Your task to perform on an android device: Turn on notifications for the Google Maps app Image 0: 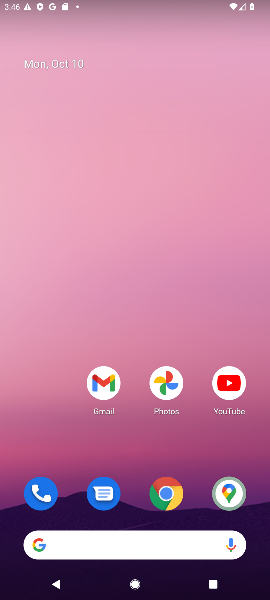
Step 0: click (224, 495)
Your task to perform on an android device: Turn on notifications for the Google Maps app Image 1: 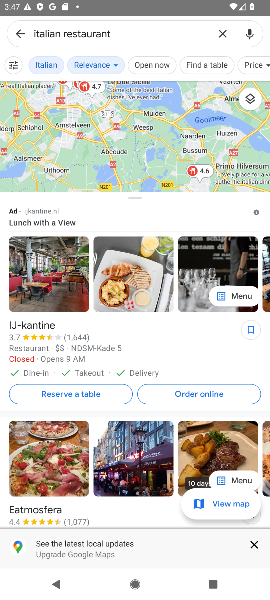
Step 1: click (19, 34)
Your task to perform on an android device: Turn on notifications for the Google Maps app Image 2: 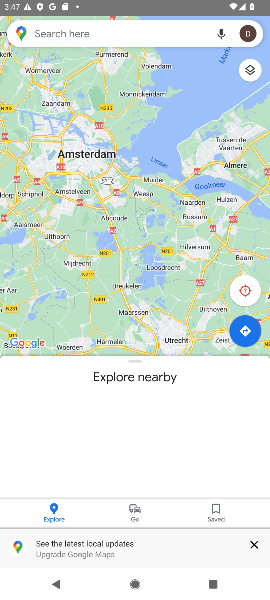
Step 2: click (21, 35)
Your task to perform on an android device: Turn on notifications for the Google Maps app Image 3: 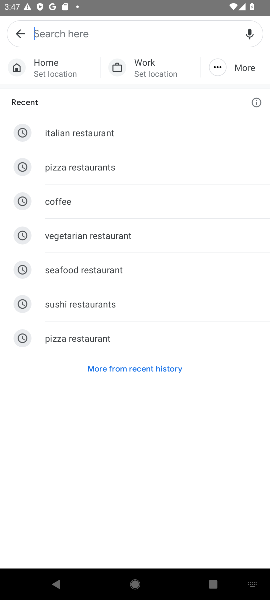
Step 3: click (218, 63)
Your task to perform on an android device: Turn on notifications for the Google Maps app Image 4: 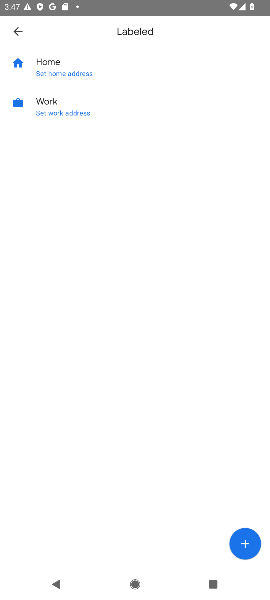
Step 4: task complete